Your task to perform on an android device: Open network settings Image 0: 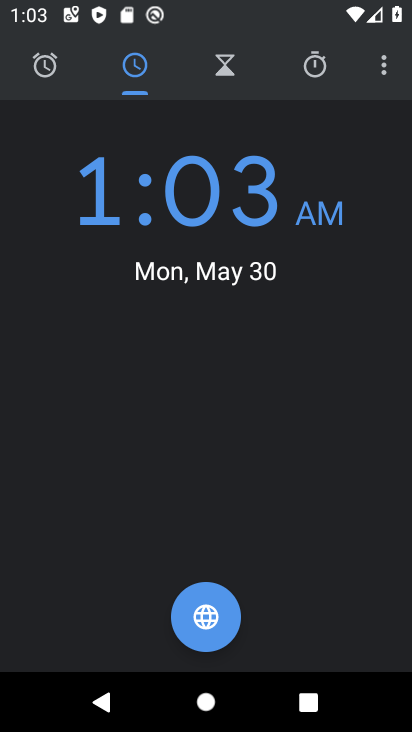
Step 0: drag from (197, 578) to (222, 168)
Your task to perform on an android device: Open network settings Image 1: 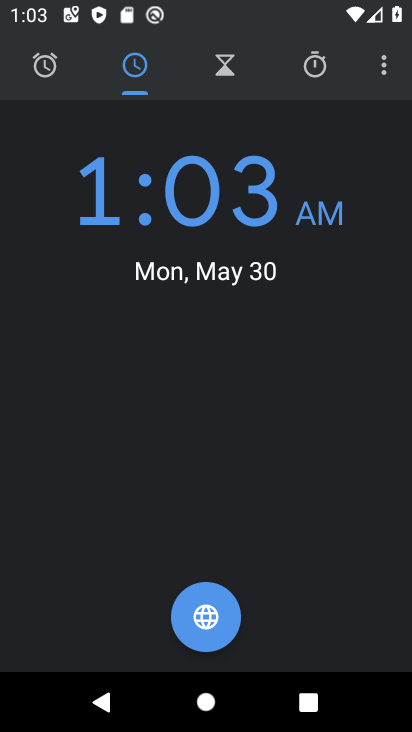
Step 1: press home button
Your task to perform on an android device: Open network settings Image 2: 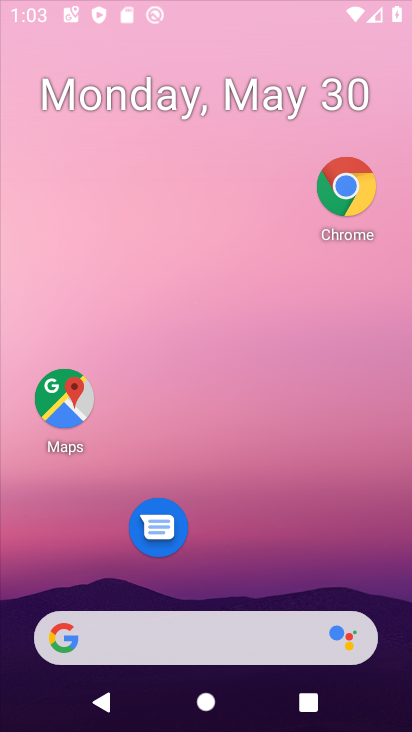
Step 2: drag from (231, 523) to (227, 58)
Your task to perform on an android device: Open network settings Image 3: 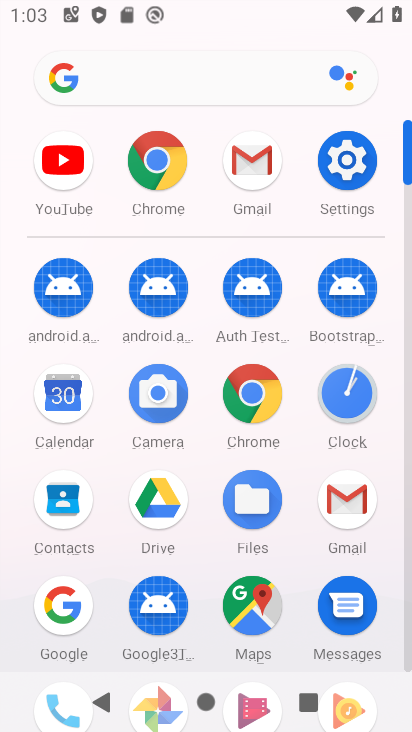
Step 3: click (361, 163)
Your task to perform on an android device: Open network settings Image 4: 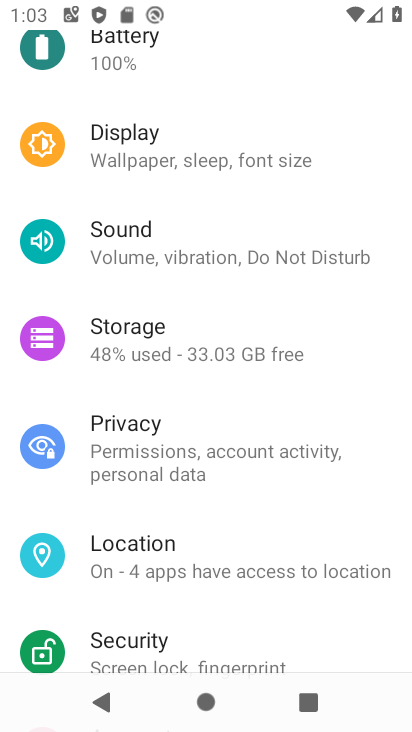
Step 4: drag from (179, 110) to (213, 559)
Your task to perform on an android device: Open network settings Image 5: 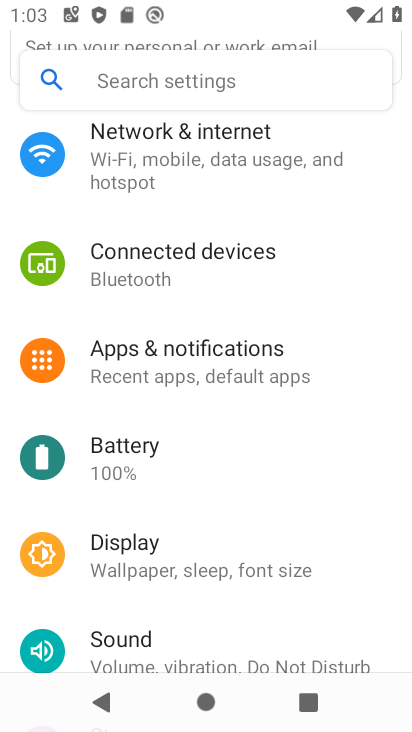
Step 5: click (169, 162)
Your task to perform on an android device: Open network settings Image 6: 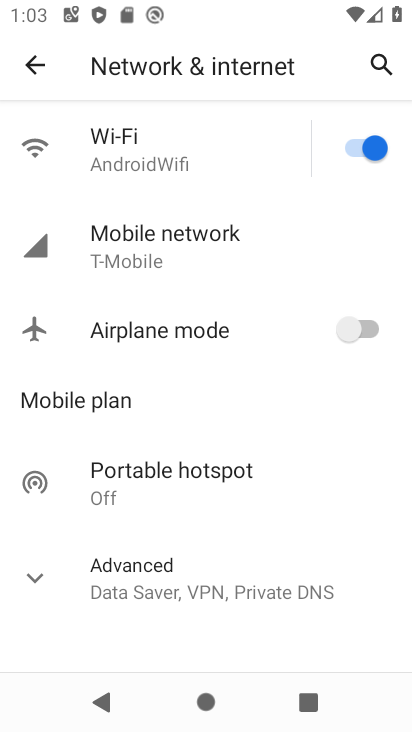
Step 6: task complete